Your task to perform on an android device: Check the news Image 0: 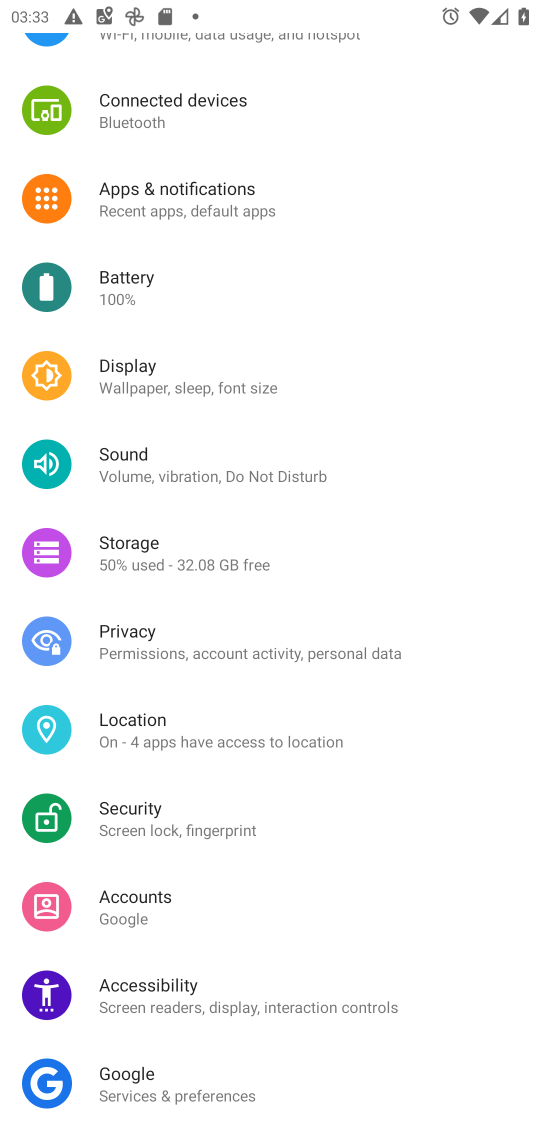
Step 0: press home button
Your task to perform on an android device: Check the news Image 1: 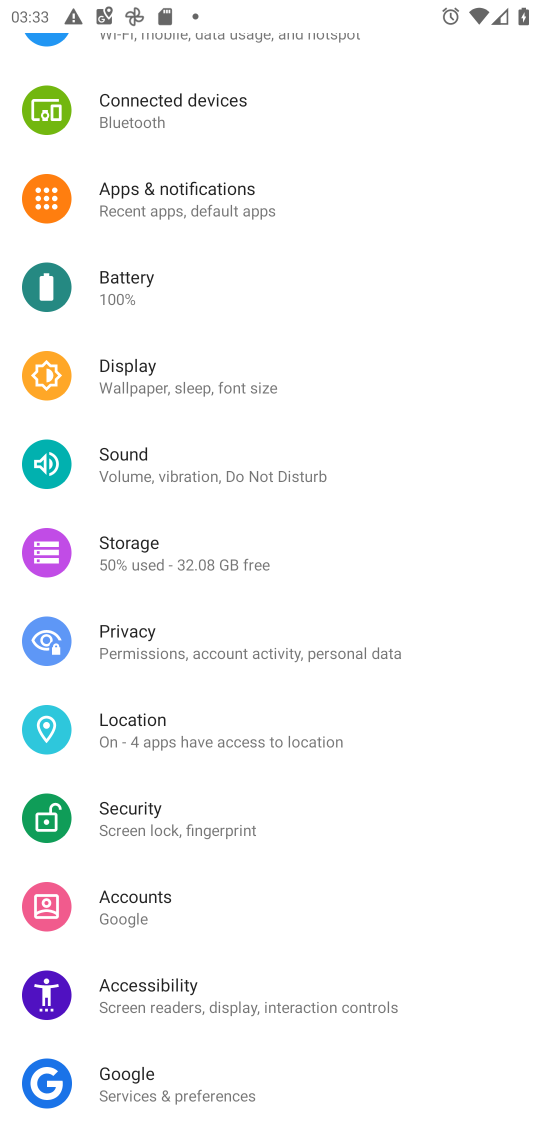
Step 1: press home button
Your task to perform on an android device: Check the news Image 2: 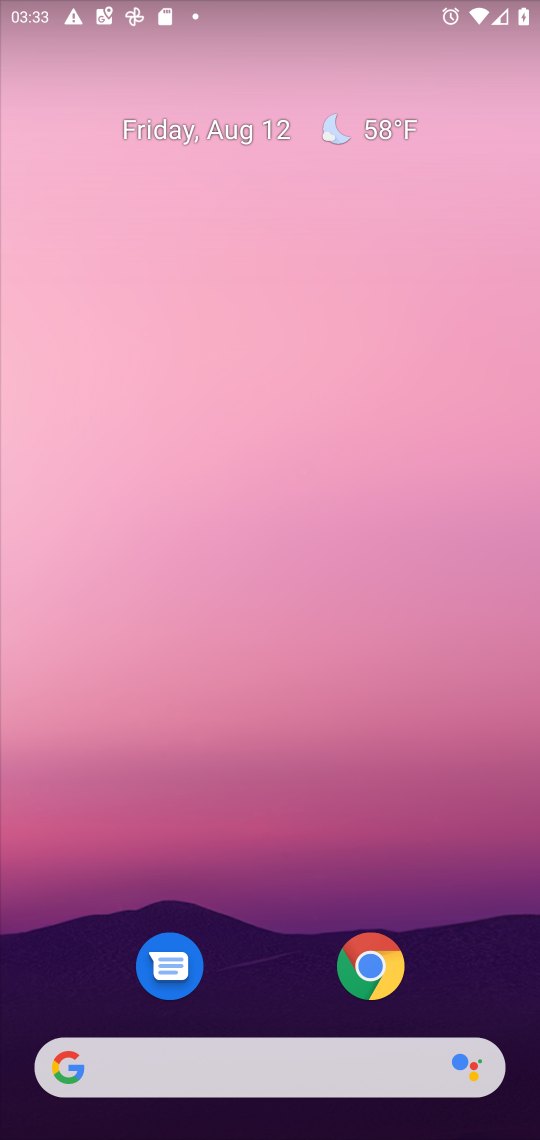
Step 2: drag from (248, 736) to (291, 11)
Your task to perform on an android device: Check the news Image 3: 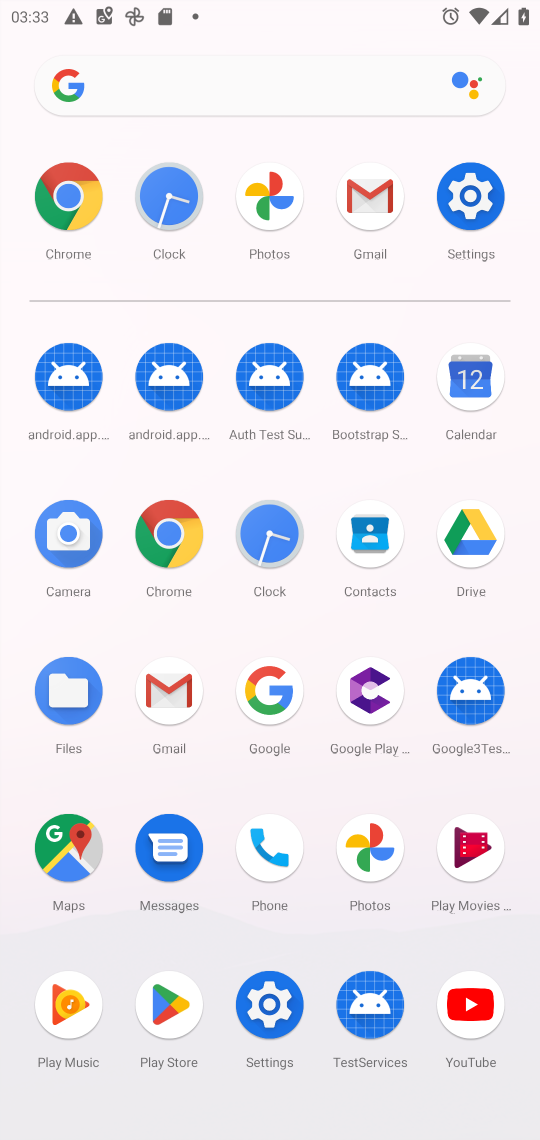
Step 3: click (165, 526)
Your task to perform on an android device: Check the news Image 4: 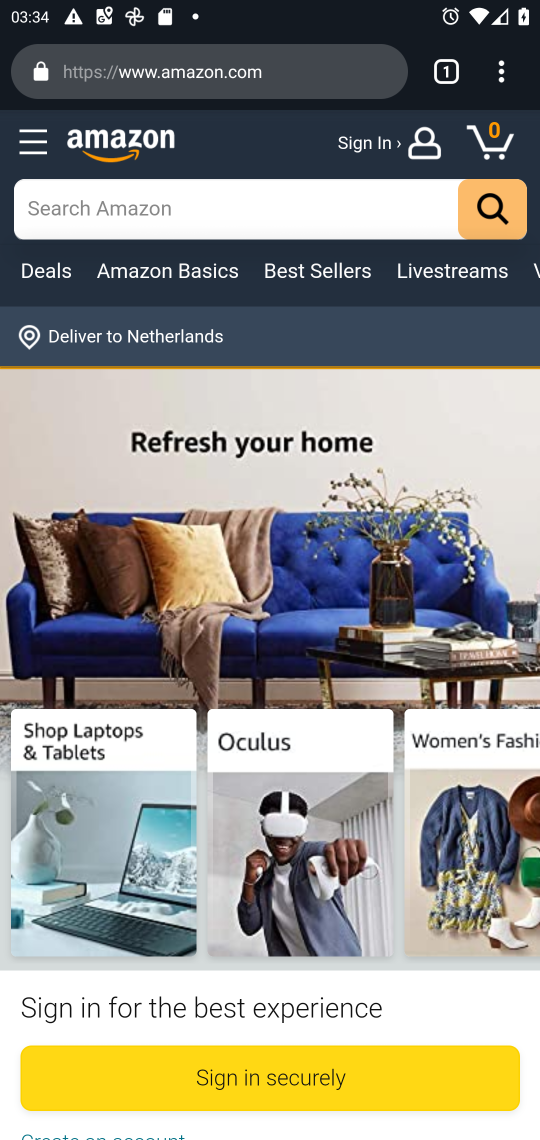
Step 4: click (234, 75)
Your task to perform on an android device: Check the news Image 5: 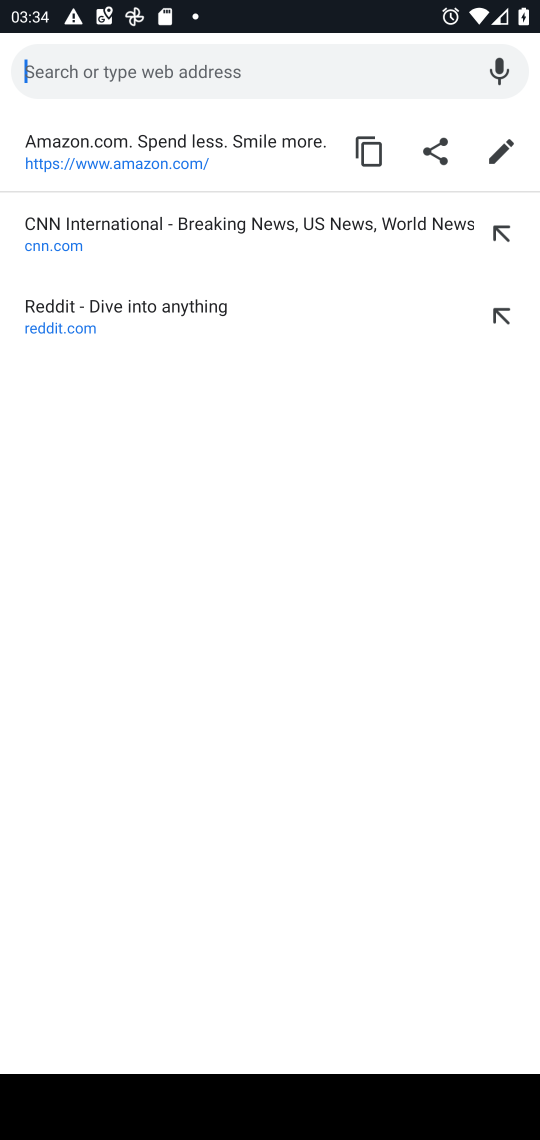
Step 5: type "news"
Your task to perform on an android device: Check the news Image 6: 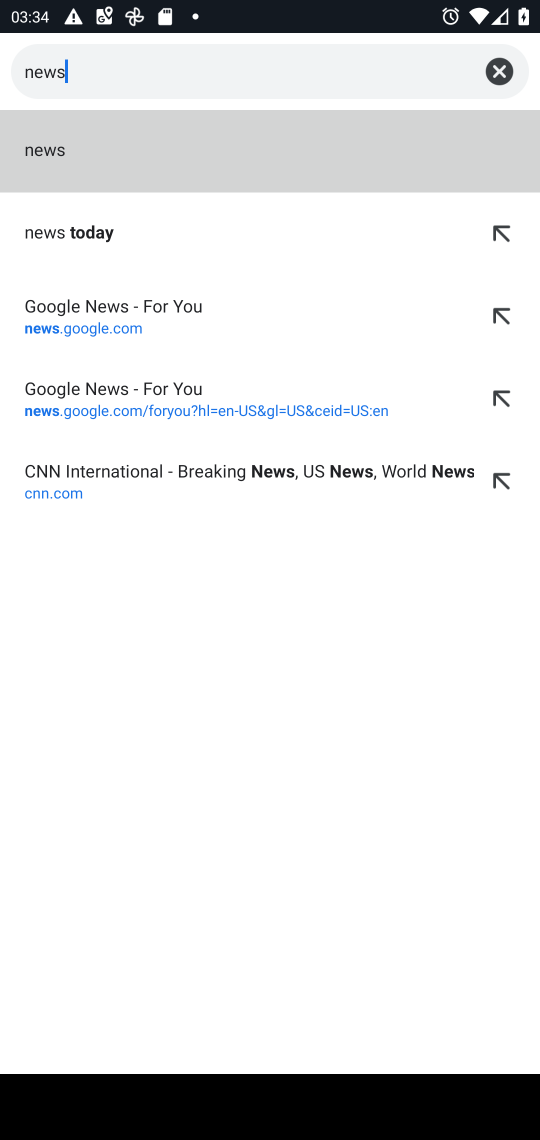
Step 6: click (107, 161)
Your task to perform on an android device: Check the news Image 7: 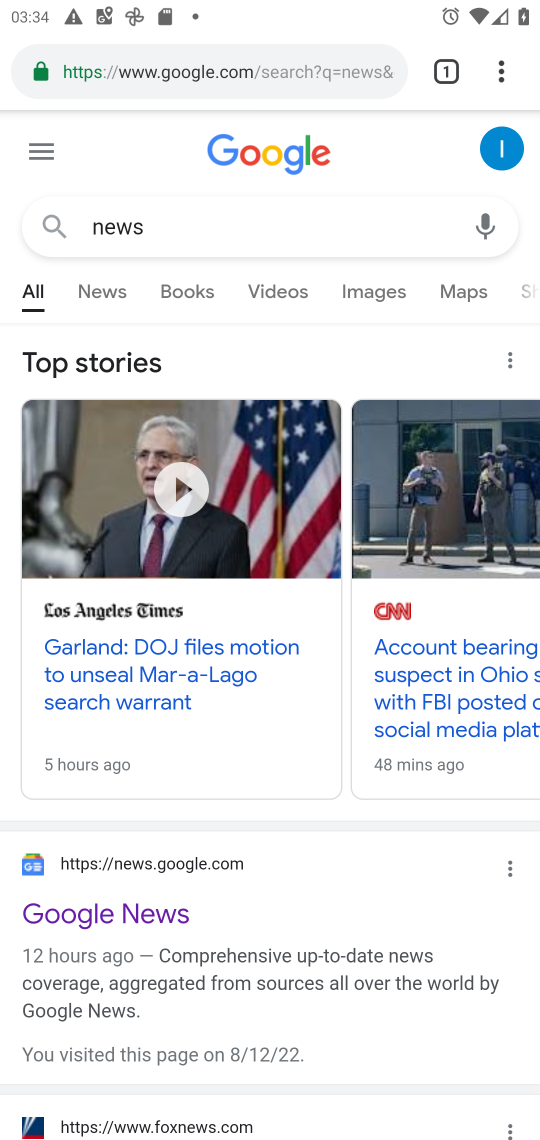
Step 7: click (85, 899)
Your task to perform on an android device: Check the news Image 8: 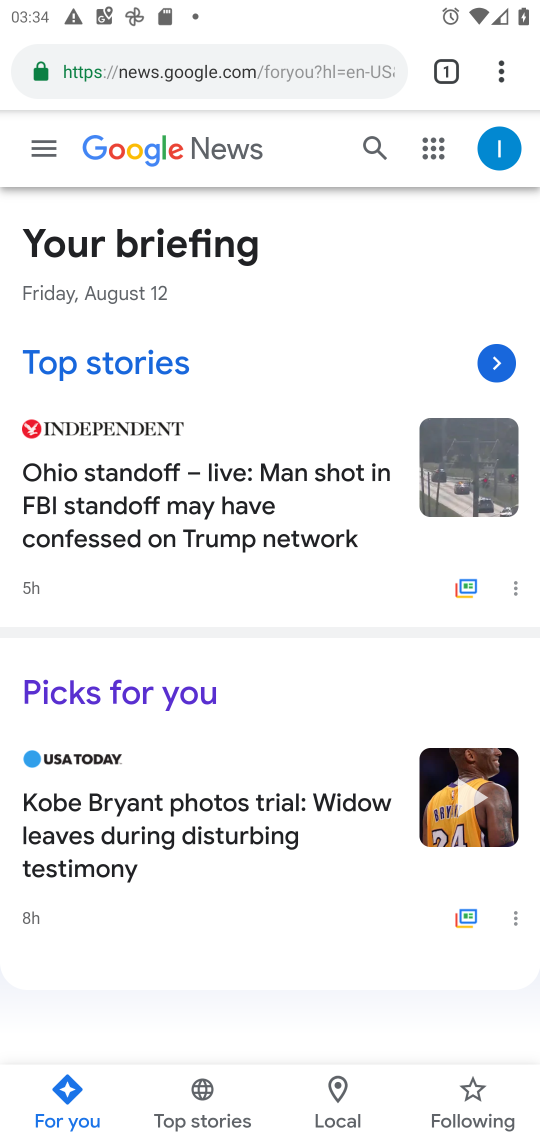
Step 8: task complete